Your task to perform on an android device: create a new album in the google photos Image 0: 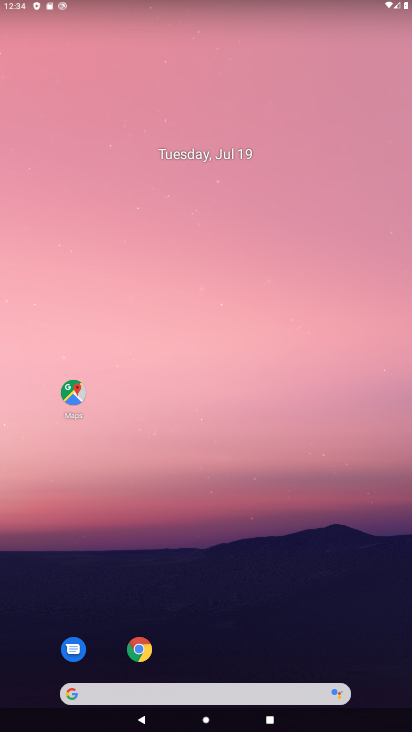
Step 0: drag from (217, 593) to (118, 123)
Your task to perform on an android device: create a new album in the google photos Image 1: 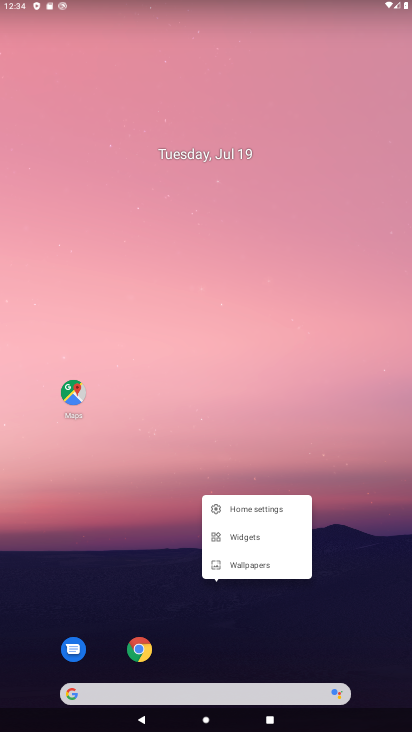
Step 1: drag from (179, 149) to (185, 236)
Your task to perform on an android device: create a new album in the google photos Image 2: 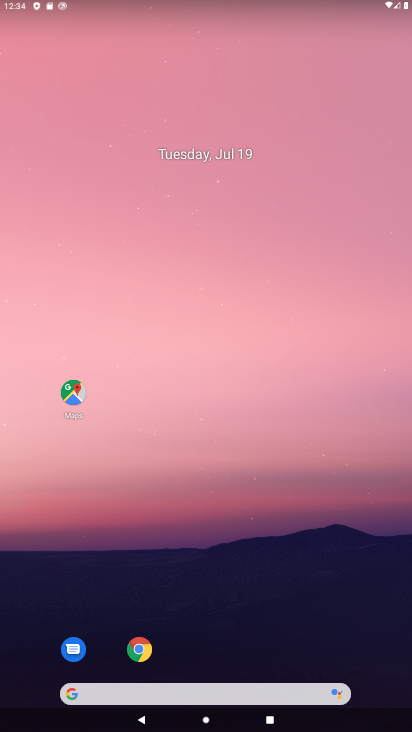
Step 2: click (131, 82)
Your task to perform on an android device: create a new album in the google photos Image 3: 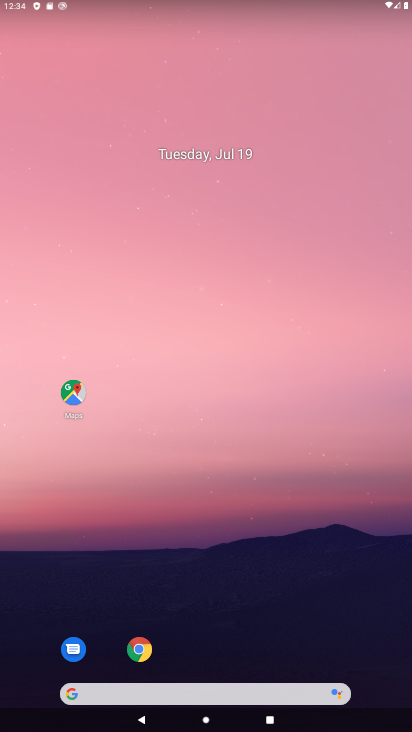
Step 3: drag from (187, 141) to (156, 87)
Your task to perform on an android device: create a new album in the google photos Image 4: 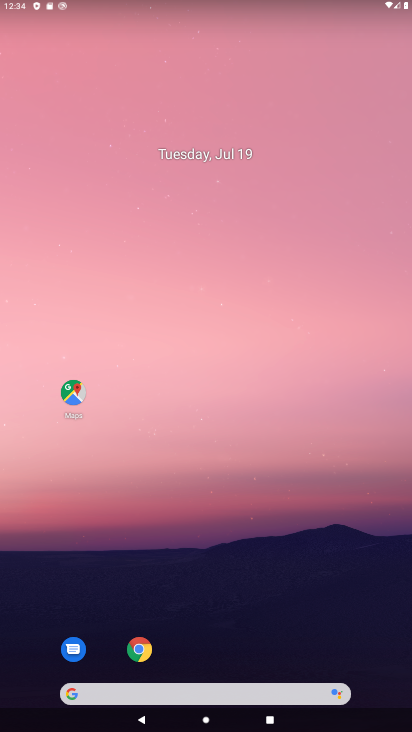
Step 4: drag from (259, 321) to (240, 209)
Your task to perform on an android device: create a new album in the google photos Image 5: 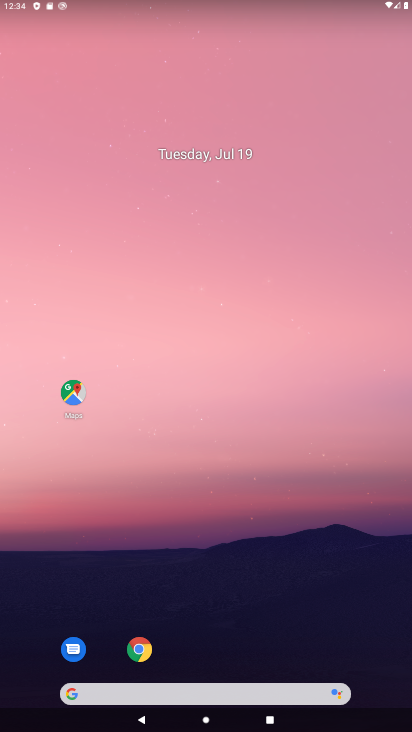
Step 5: drag from (121, 296) to (114, 244)
Your task to perform on an android device: create a new album in the google photos Image 6: 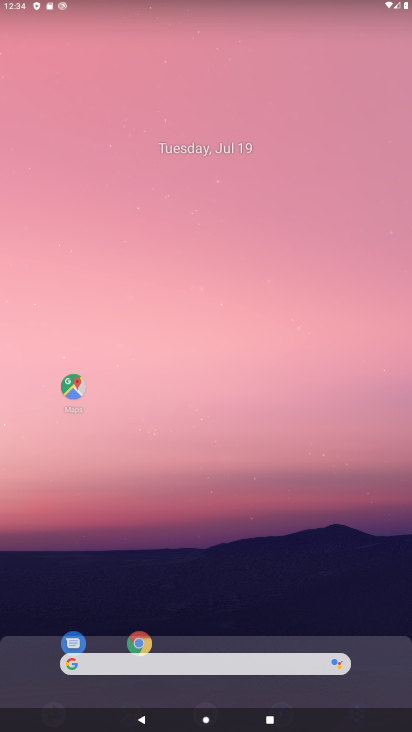
Step 6: drag from (186, 622) to (186, 114)
Your task to perform on an android device: create a new album in the google photos Image 7: 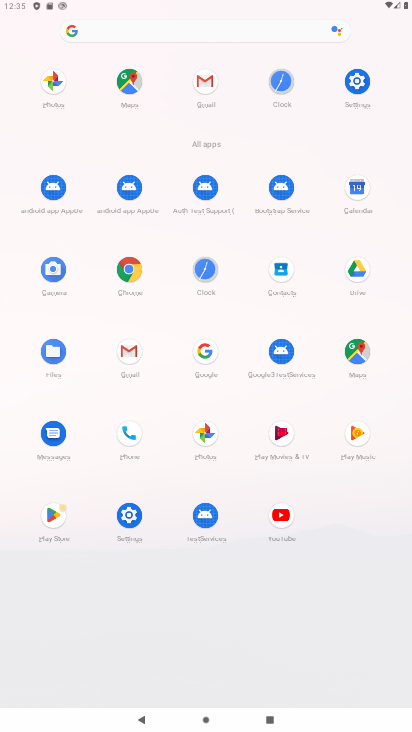
Step 7: click (208, 426)
Your task to perform on an android device: create a new album in the google photos Image 8: 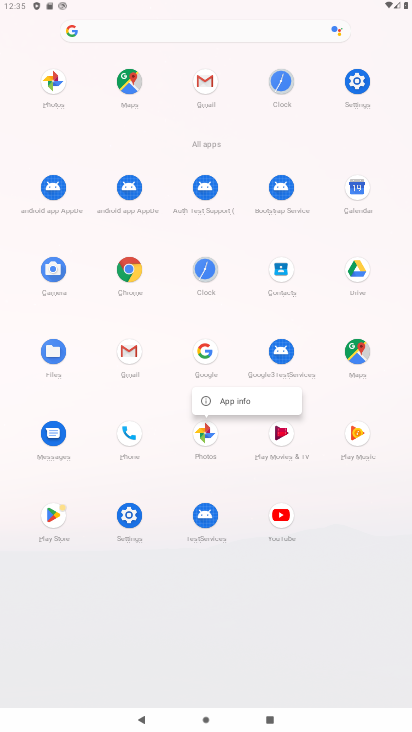
Step 8: click (208, 427)
Your task to perform on an android device: create a new album in the google photos Image 9: 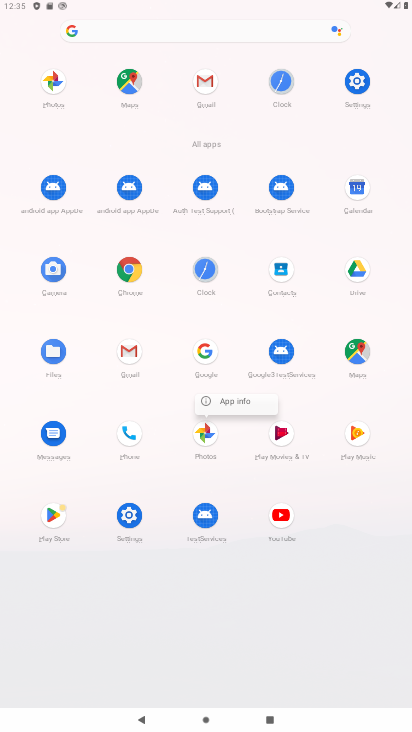
Step 9: click (208, 427)
Your task to perform on an android device: create a new album in the google photos Image 10: 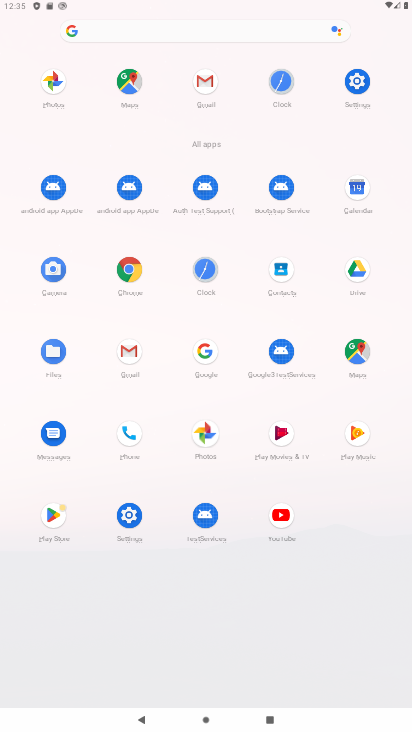
Step 10: click (209, 434)
Your task to perform on an android device: create a new album in the google photos Image 11: 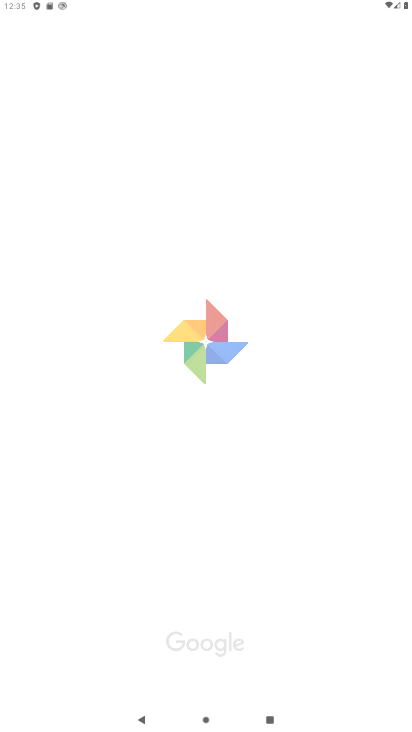
Step 11: click (201, 431)
Your task to perform on an android device: create a new album in the google photos Image 12: 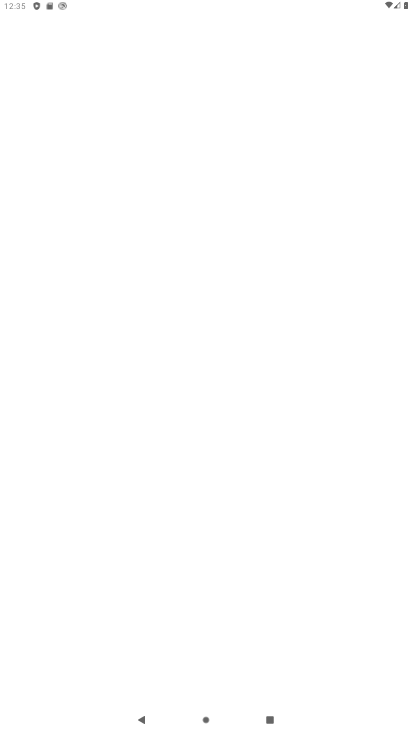
Step 12: click (203, 429)
Your task to perform on an android device: create a new album in the google photos Image 13: 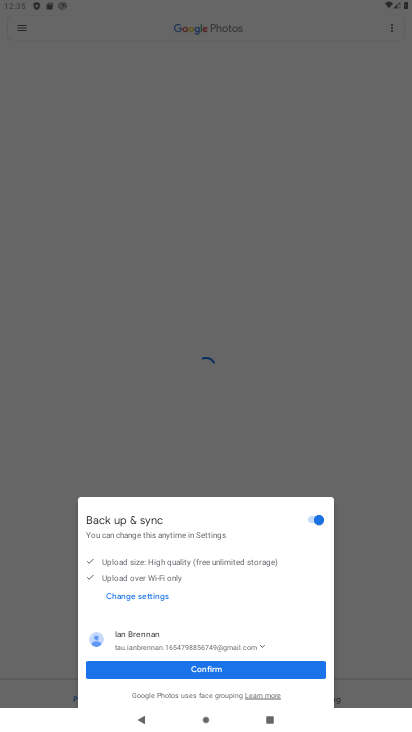
Step 13: click (230, 672)
Your task to perform on an android device: create a new album in the google photos Image 14: 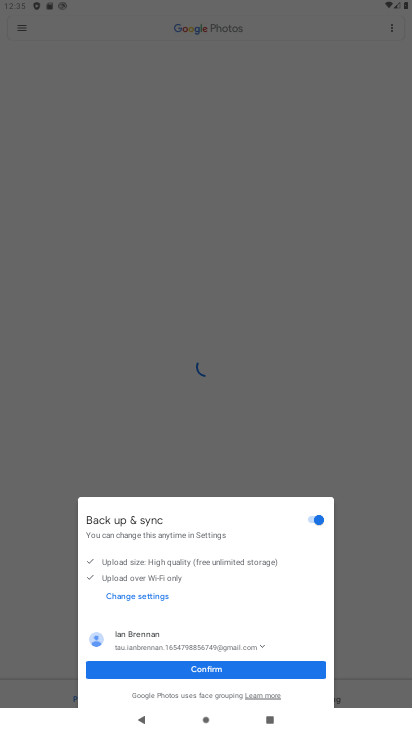
Step 14: click (230, 672)
Your task to perform on an android device: create a new album in the google photos Image 15: 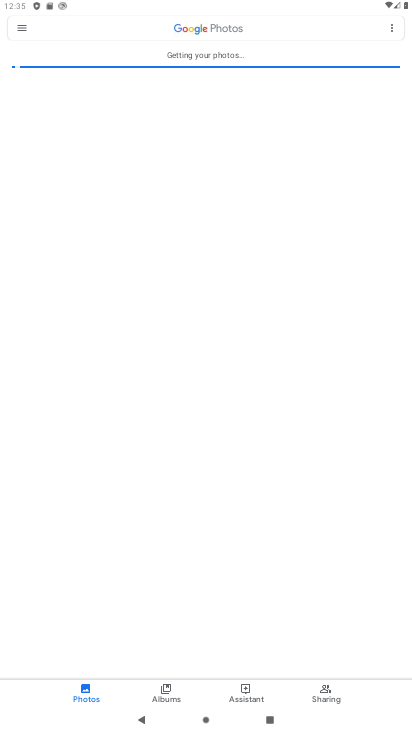
Step 15: click (230, 672)
Your task to perform on an android device: create a new album in the google photos Image 16: 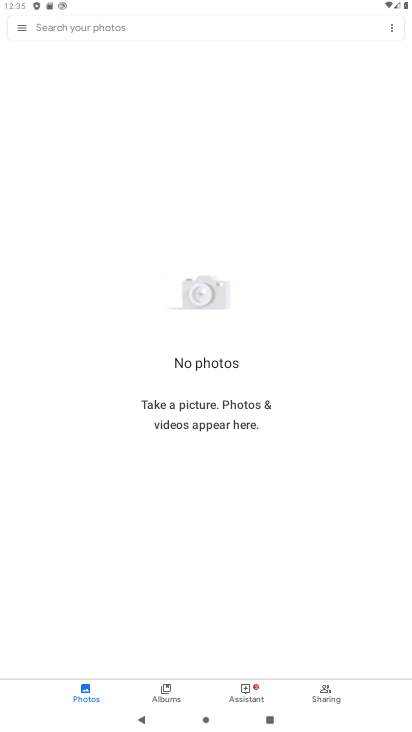
Step 16: click (166, 692)
Your task to perform on an android device: create a new album in the google photos Image 17: 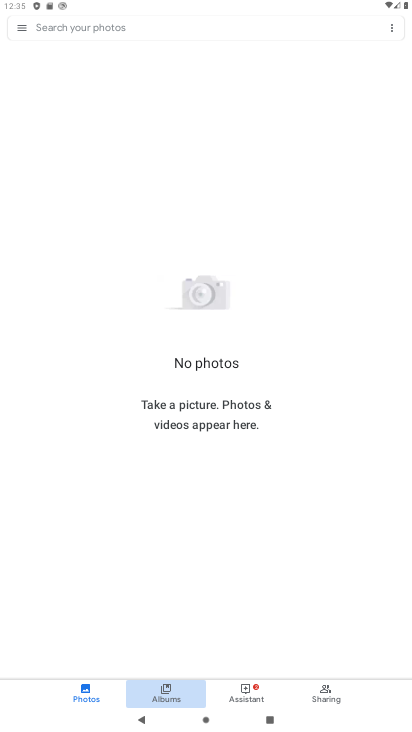
Step 17: click (166, 692)
Your task to perform on an android device: create a new album in the google photos Image 18: 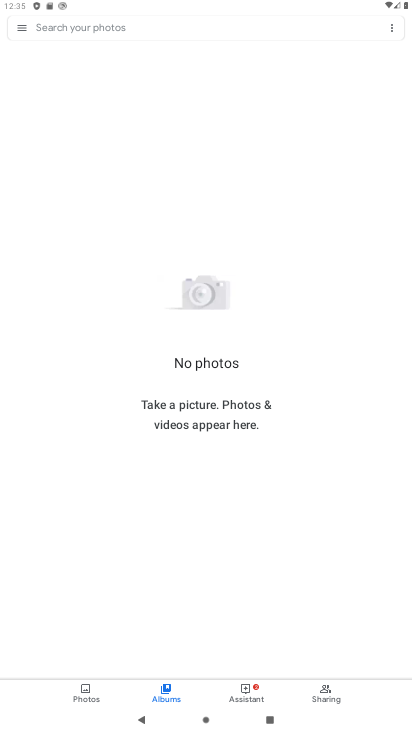
Step 18: click (166, 691)
Your task to perform on an android device: create a new album in the google photos Image 19: 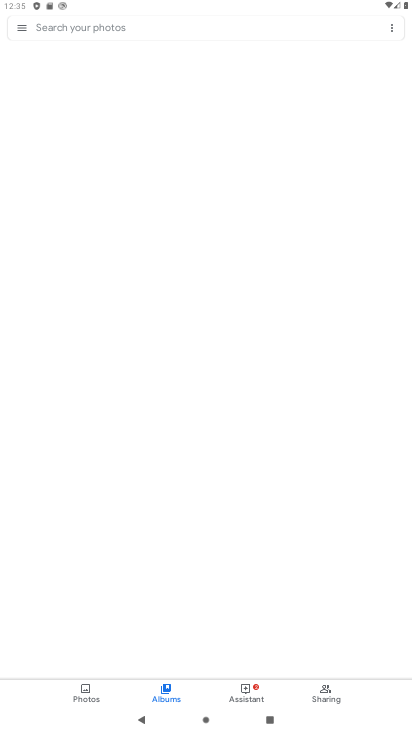
Step 19: click (166, 690)
Your task to perform on an android device: create a new album in the google photos Image 20: 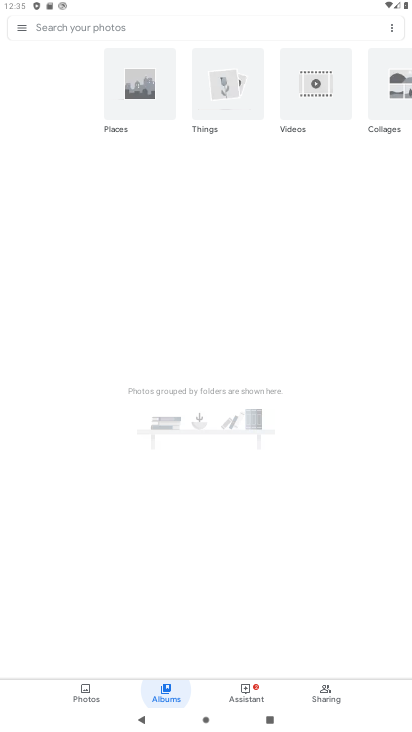
Step 20: click (169, 690)
Your task to perform on an android device: create a new album in the google photos Image 21: 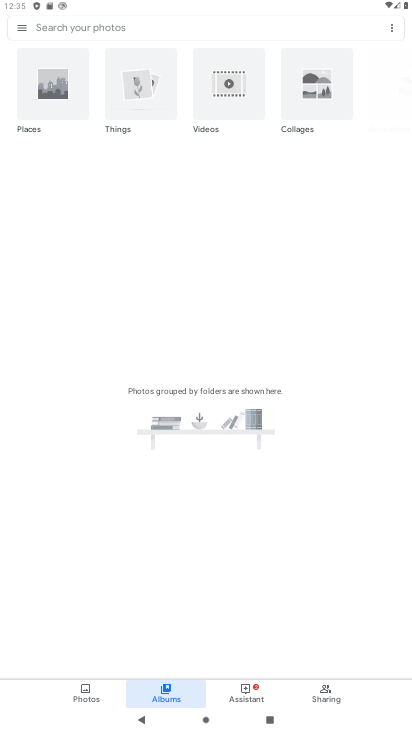
Step 21: click (169, 690)
Your task to perform on an android device: create a new album in the google photos Image 22: 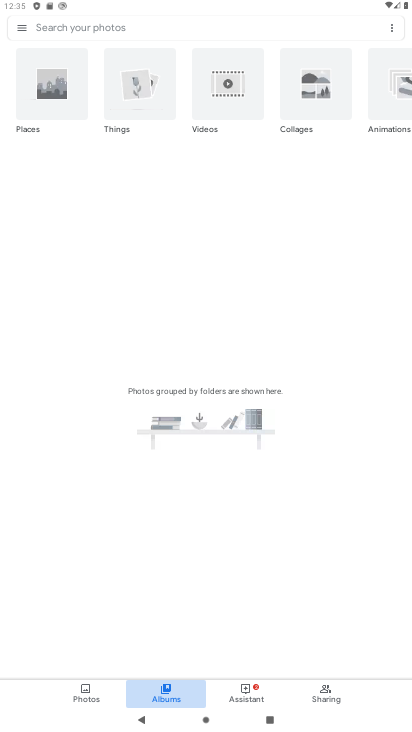
Step 22: click (170, 689)
Your task to perform on an android device: create a new album in the google photos Image 23: 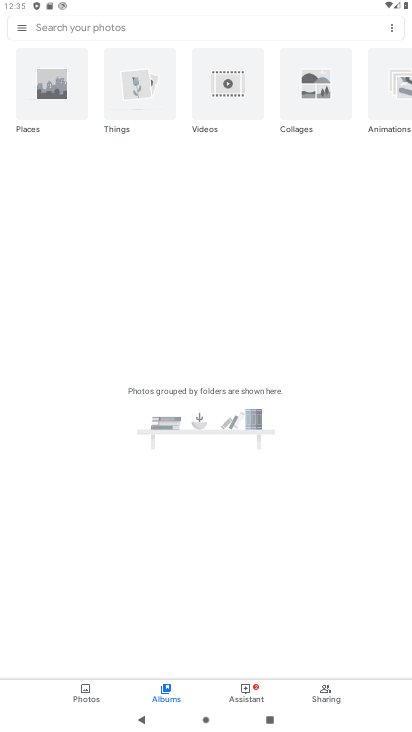
Step 23: task complete